Your task to perform on an android device: Turn on the flashlight Image 0: 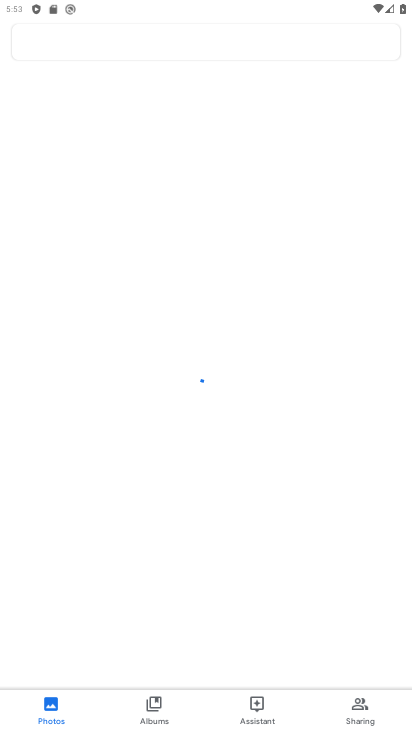
Step 0: press home button
Your task to perform on an android device: Turn on the flashlight Image 1: 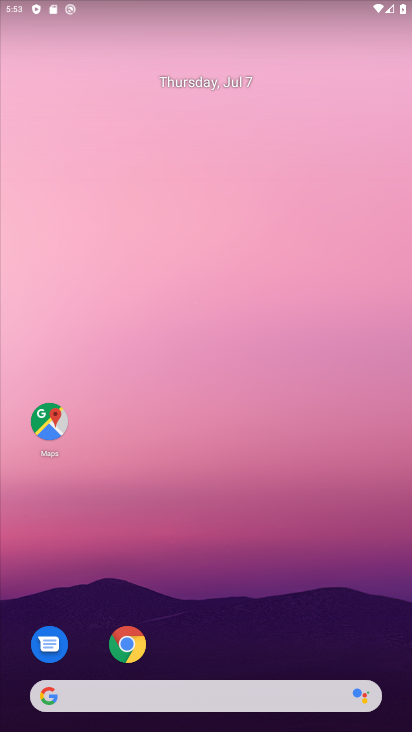
Step 1: task complete